Your task to perform on an android device: Set the phone to "Do not disturb". Image 0: 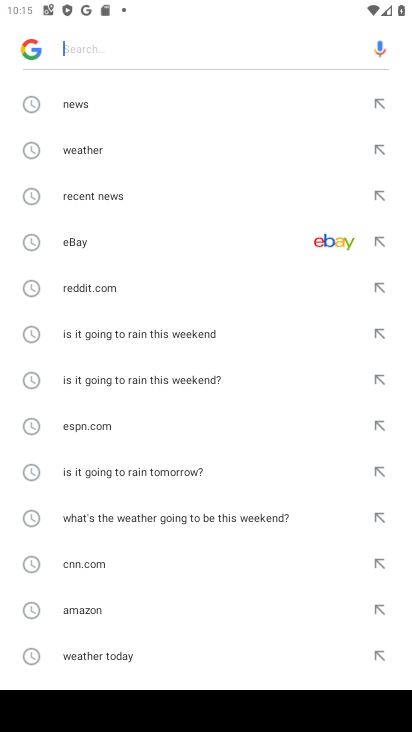
Step 0: press back button
Your task to perform on an android device: Set the phone to "Do not disturb". Image 1: 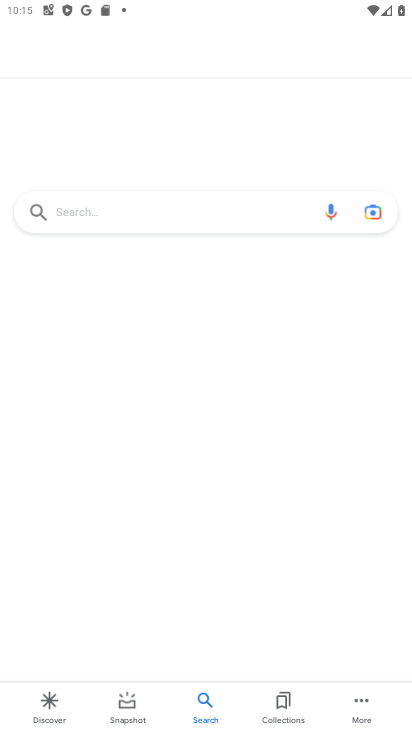
Step 1: press home button
Your task to perform on an android device: Set the phone to "Do not disturb". Image 2: 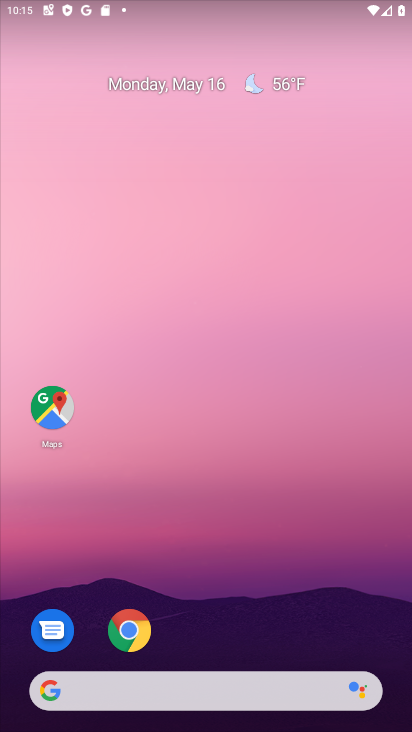
Step 2: drag from (199, 632) to (324, 62)
Your task to perform on an android device: Set the phone to "Do not disturb". Image 3: 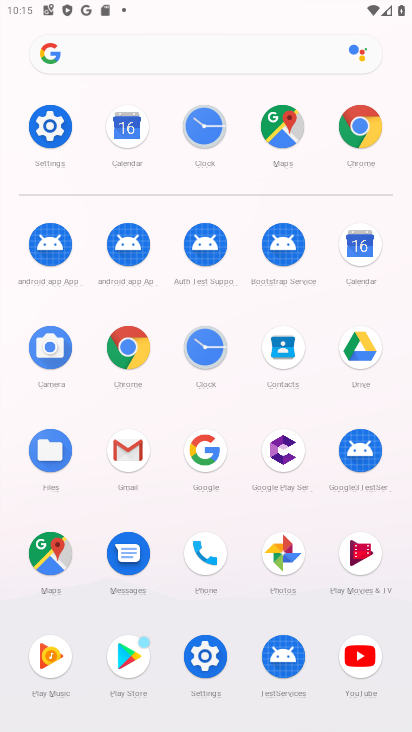
Step 3: click (202, 664)
Your task to perform on an android device: Set the phone to "Do not disturb". Image 4: 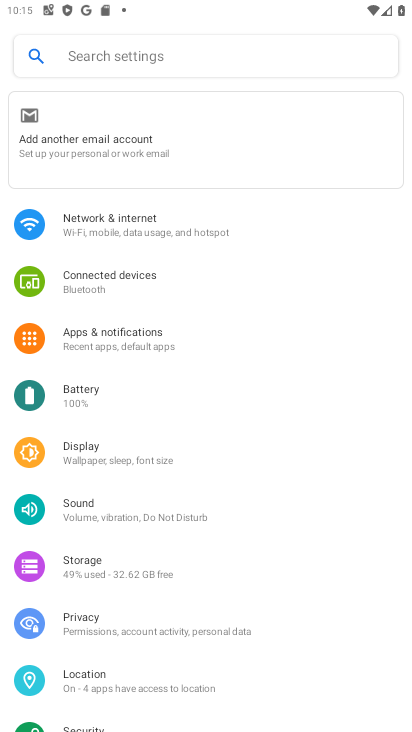
Step 4: click (120, 519)
Your task to perform on an android device: Set the phone to "Do not disturb". Image 5: 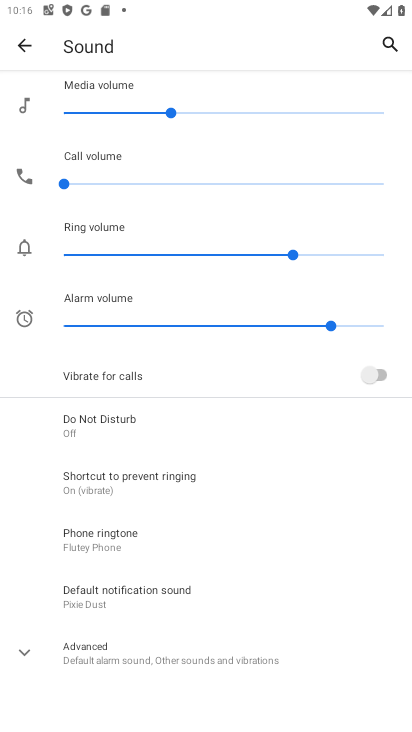
Step 5: click (117, 437)
Your task to perform on an android device: Set the phone to "Do not disturb". Image 6: 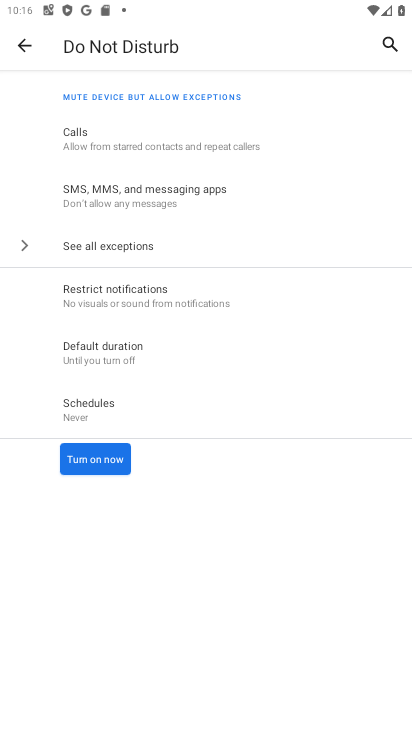
Step 6: click (107, 460)
Your task to perform on an android device: Set the phone to "Do not disturb". Image 7: 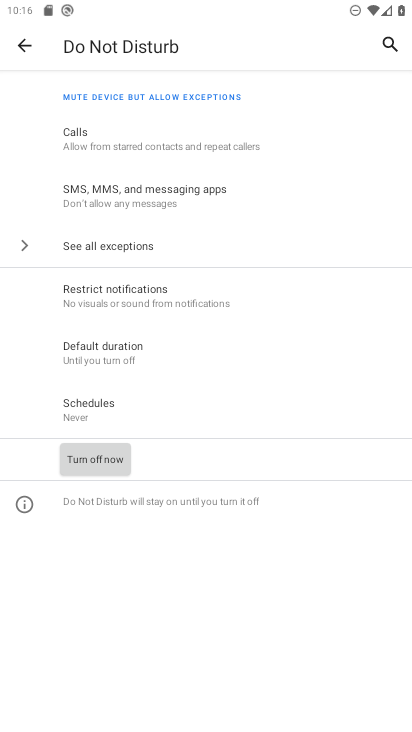
Step 7: task complete